Your task to perform on an android device: Check the news Image 0: 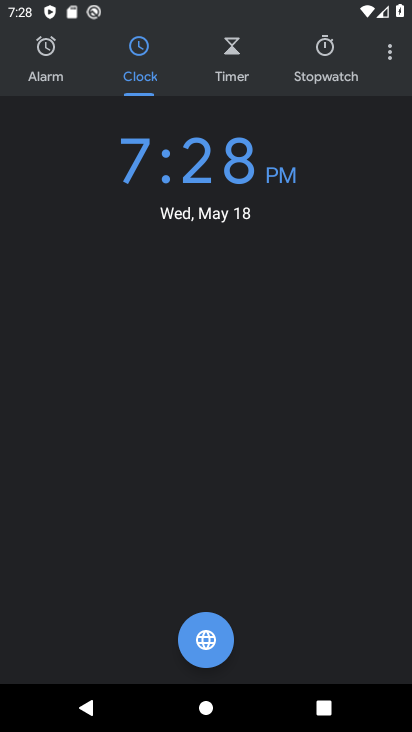
Step 0: press home button
Your task to perform on an android device: Check the news Image 1: 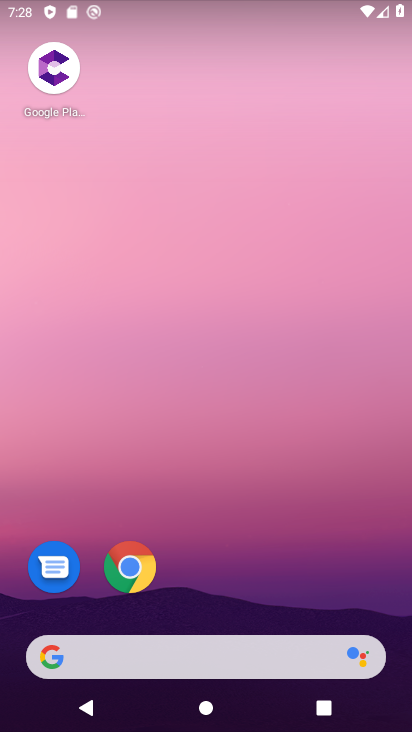
Step 1: click (140, 580)
Your task to perform on an android device: Check the news Image 2: 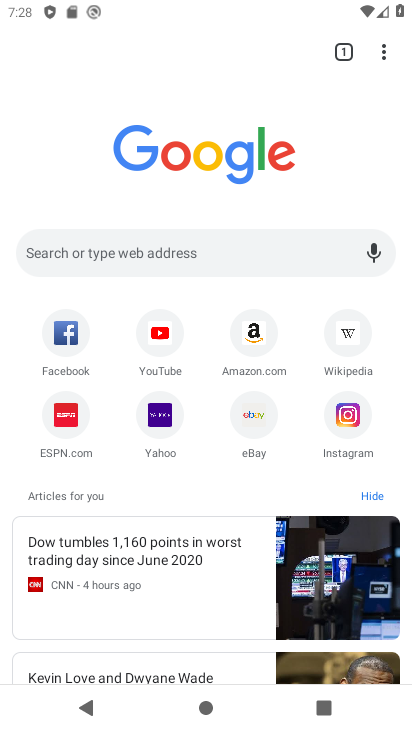
Step 2: click (236, 244)
Your task to perform on an android device: Check the news Image 3: 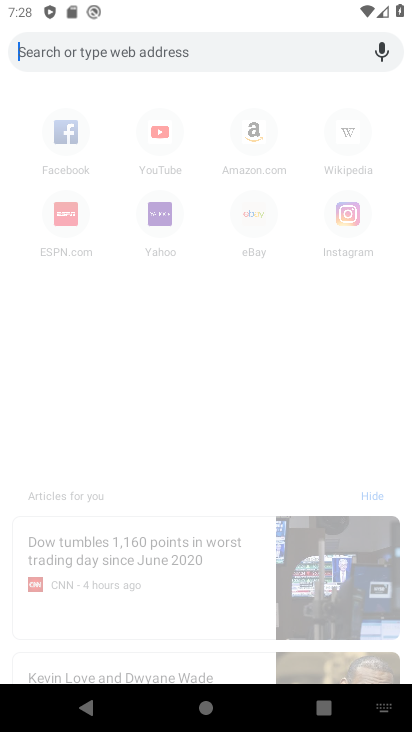
Step 3: type "news"
Your task to perform on an android device: Check the news Image 4: 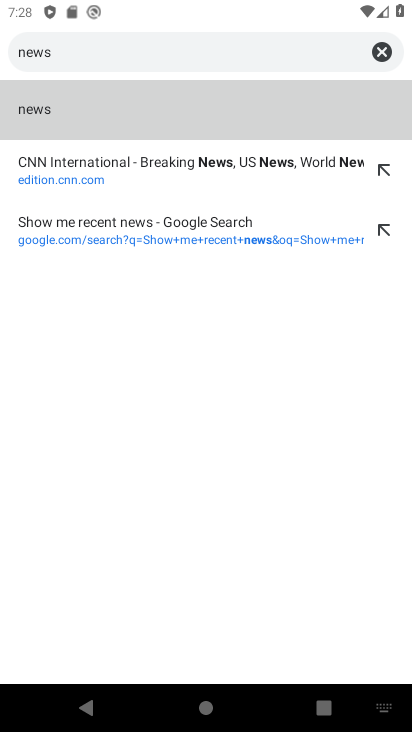
Step 4: click (109, 104)
Your task to perform on an android device: Check the news Image 5: 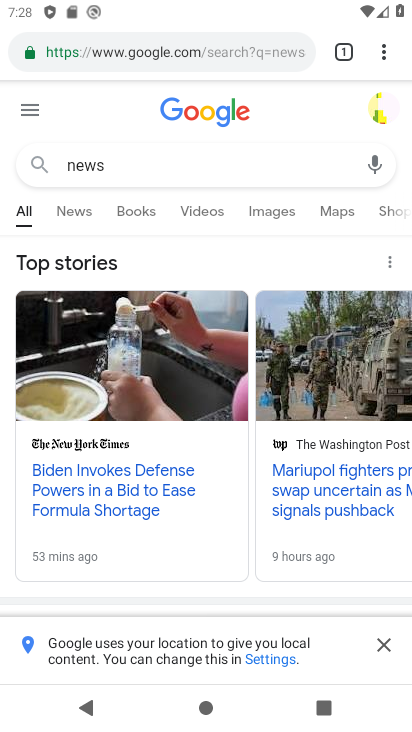
Step 5: task complete